Your task to perform on an android device: Go to display settings Image 0: 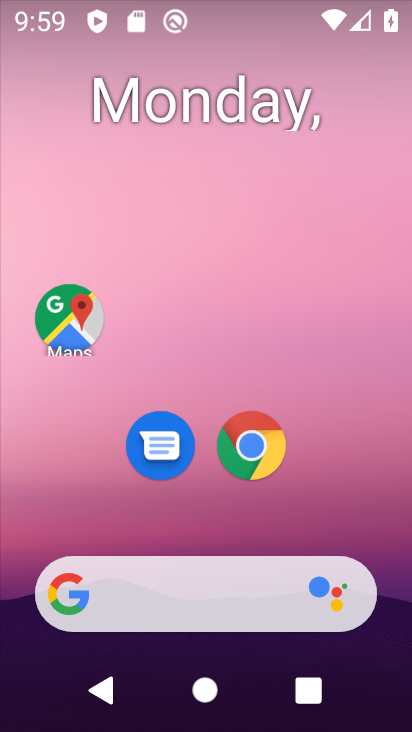
Step 0: drag from (321, 512) to (313, 183)
Your task to perform on an android device: Go to display settings Image 1: 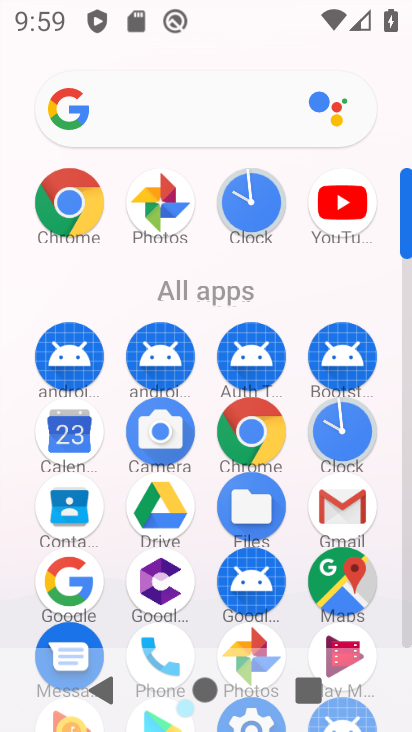
Step 1: drag from (298, 622) to (314, 305)
Your task to perform on an android device: Go to display settings Image 2: 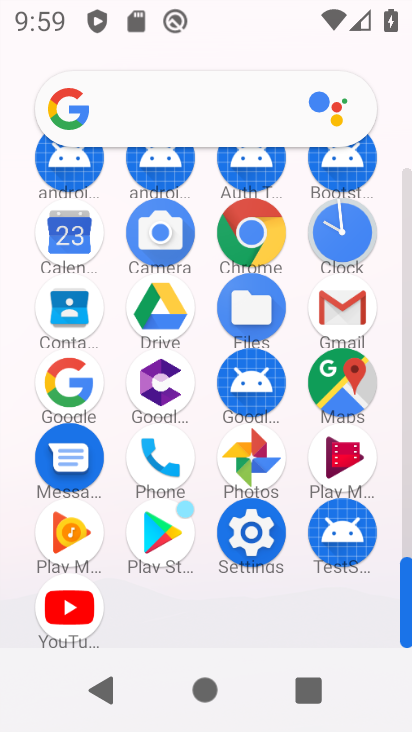
Step 2: click (259, 539)
Your task to perform on an android device: Go to display settings Image 3: 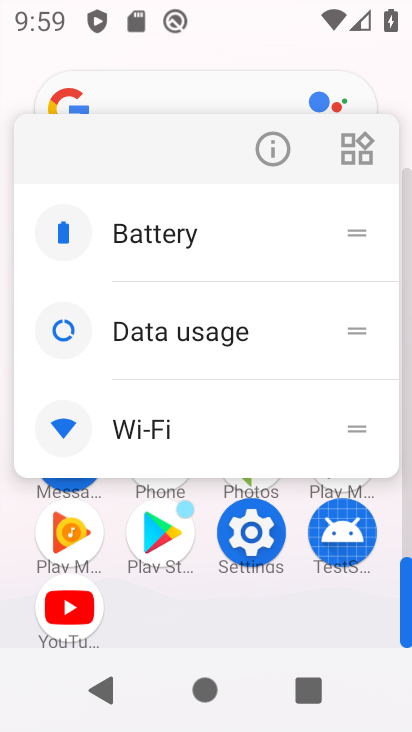
Step 3: click (258, 538)
Your task to perform on an android device: Go to display settings Image 4: 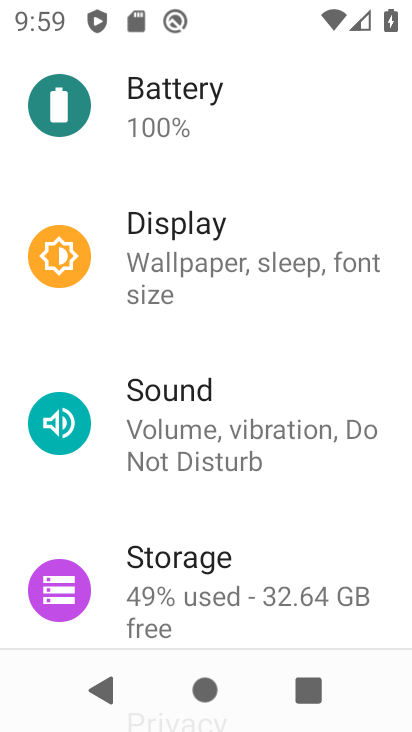
Step 4: click (226, 253)
Your task to perform on an android device: Go to display settings Image 5: 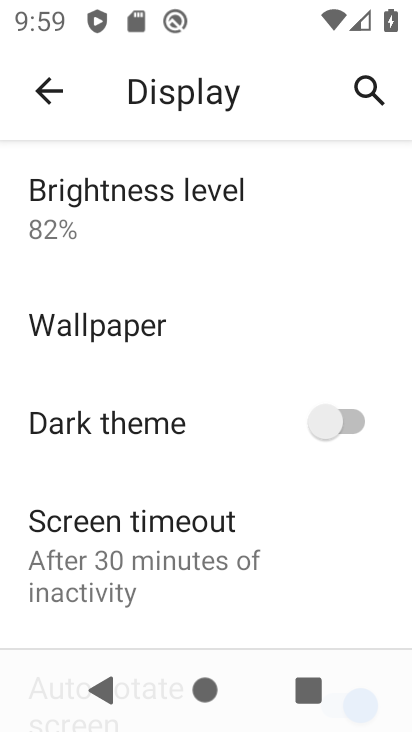
Step 5: task complete